Your task to perform on an android device: change timer sound Image 0: 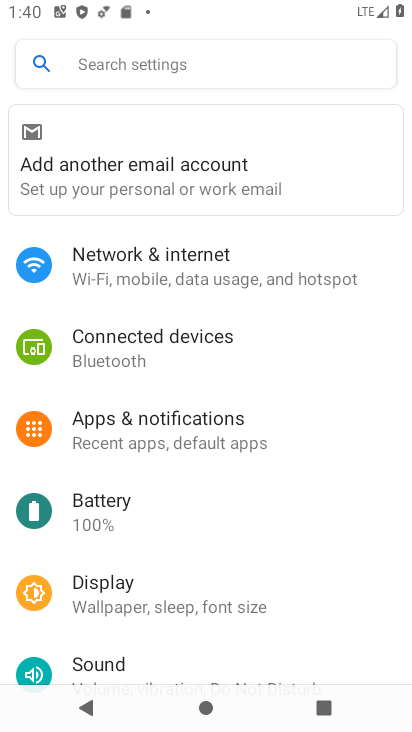
Step 0: press home button
Your task to perform on an android device: change timer sound Image 1: 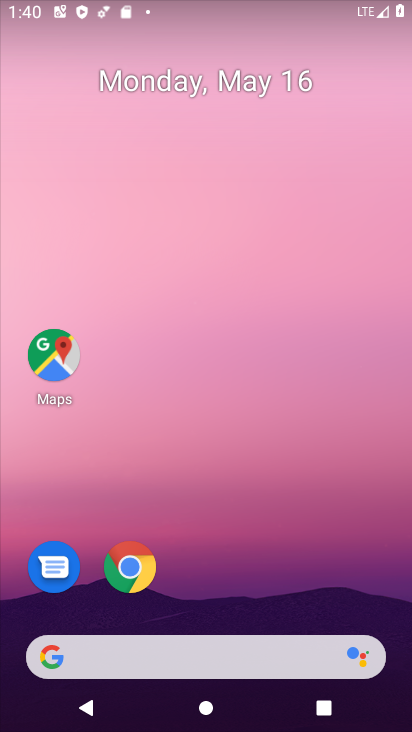
Step 1: drag from (277, 596) to (192, 256)
Your task to perform on an android device: change timer sound Image 2: 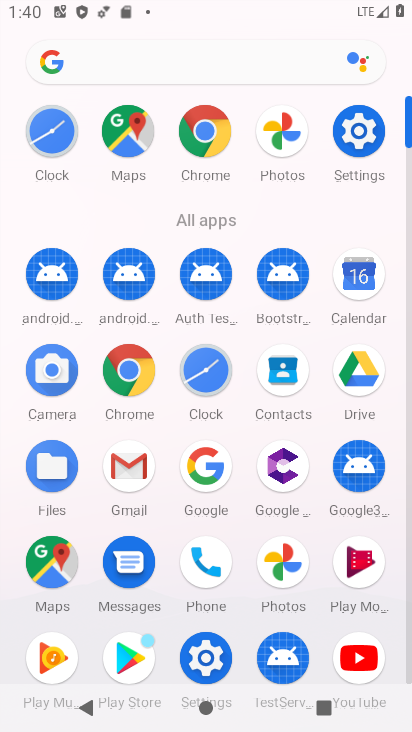
Step 2: click (179, 263)
Your task to perform on an android device: change timer sound Image 3: 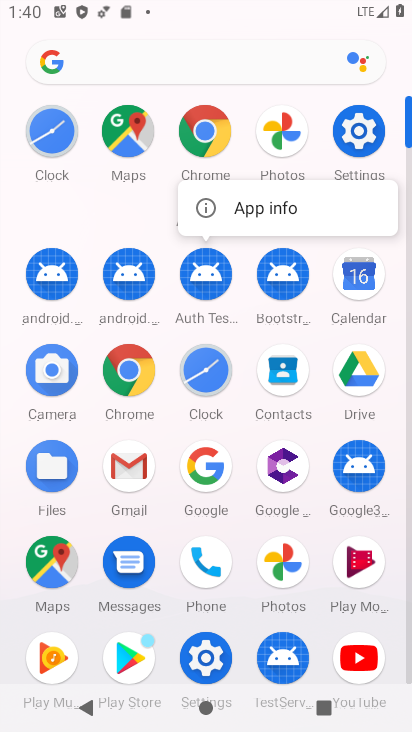
Step 3: click (208, 364)
Your task to perform on an android device: change timer sound Image 4: 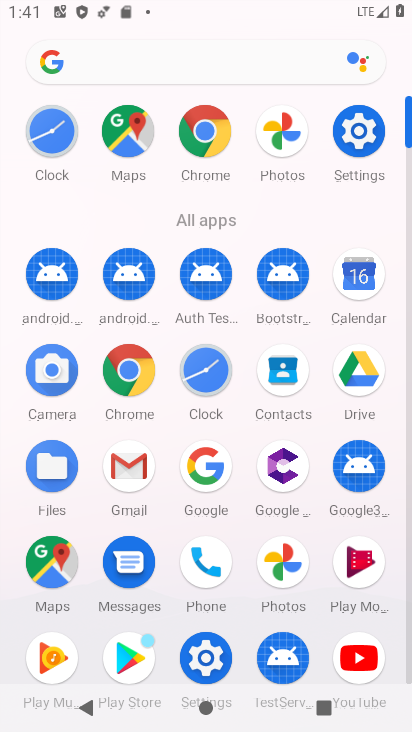
Step 4: click (57, 140)
Your task to perform on an android device: change timer sound Image 5: 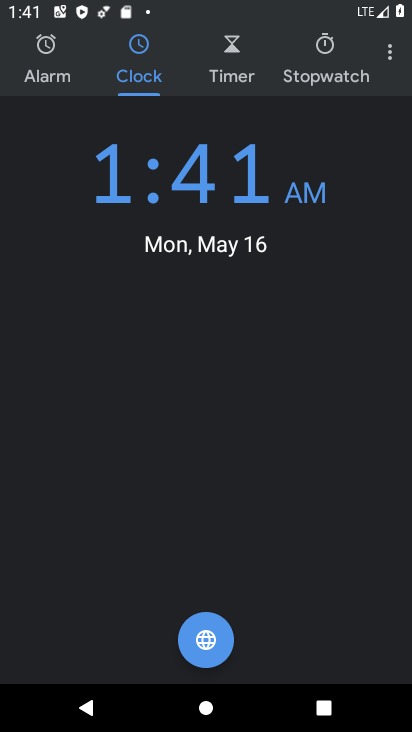
Step 5: click (379, 60)
Your task to perform on an android device: change timer sound Image 6: 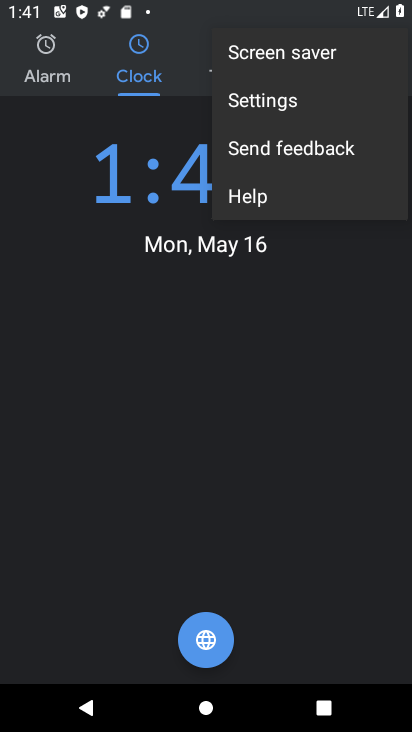
Step 6: click (335, 95)
Your task to perform on an android device: change timer sound Image 7: 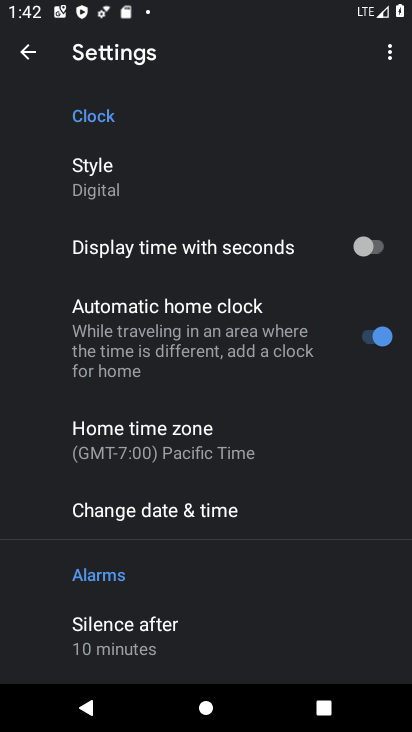
Step 7: drag from (304, 654) to (272, 14)
Your task to perform on an android device: change timer sound Image 8: 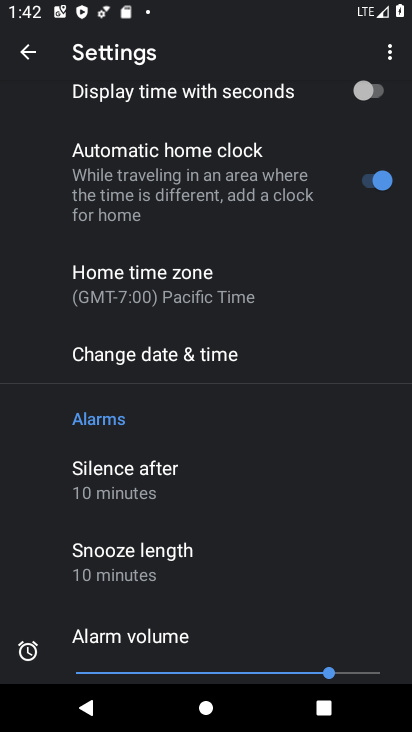
Step 8: drag from (246, 634) to (200, 245)
Your task to perform on an android device: change timer sound Image 9: 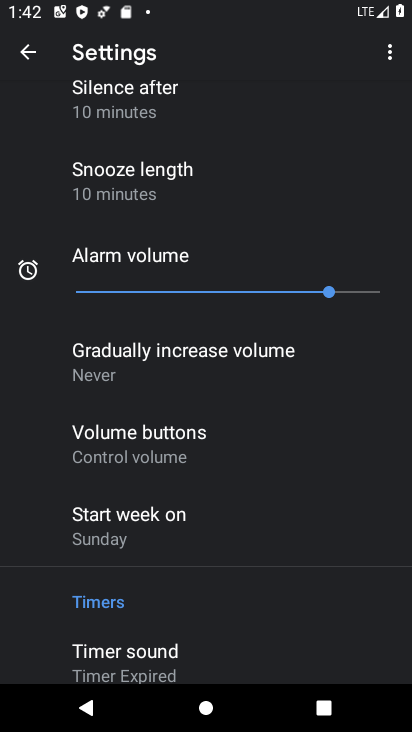
Step 9: click (209, 653)
Your task to perform on an android device: change timer sound Image 10: 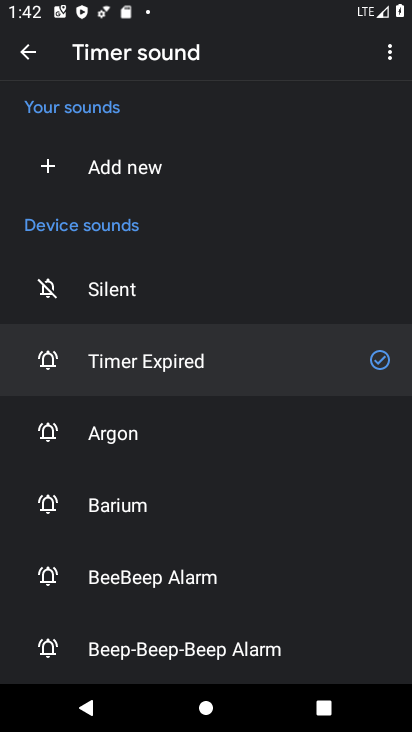
Step 10: click (193, 593)
Your task to perform on an android device: change timer sound Image 11: 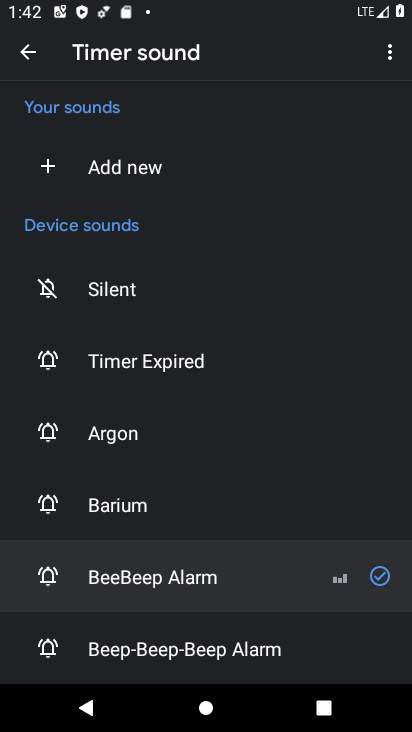
Step 11: task complete